Your task to perform on an android device: Open Wikipedia Image 0: 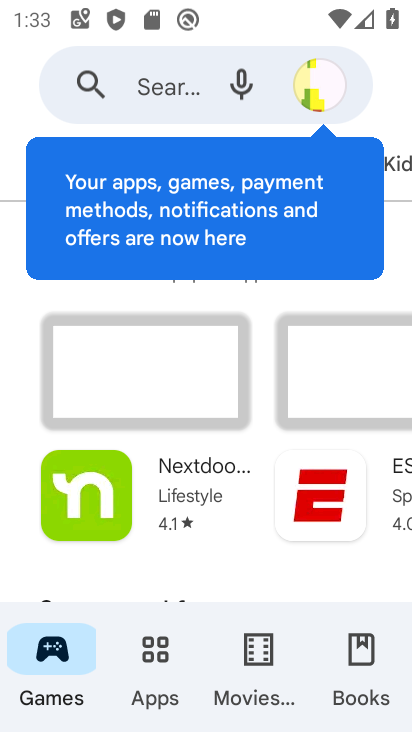
Step 0: press home button
Your task to perform on an android device: Open Wikipedia Image 1: 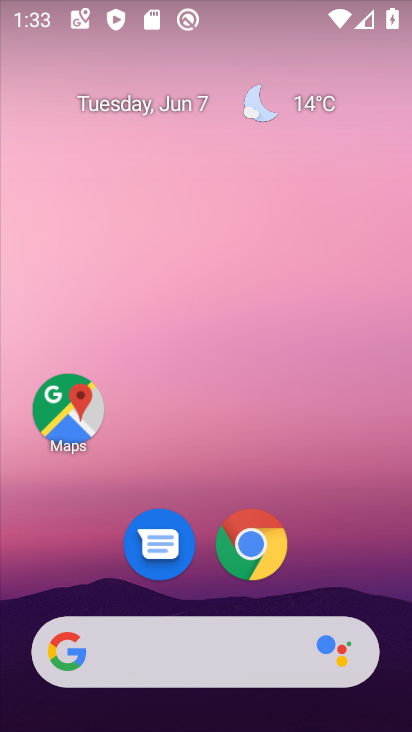
Step 1: click (259, 529)
Your task to perform on an android device: Open Wikipedia Image 2: 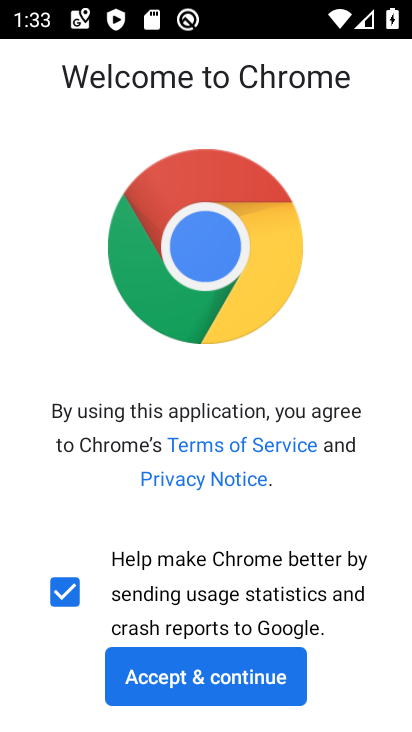
Step 2: click (236, 663)
Your task to perform on an android device: Open Wikipedia Image 3: 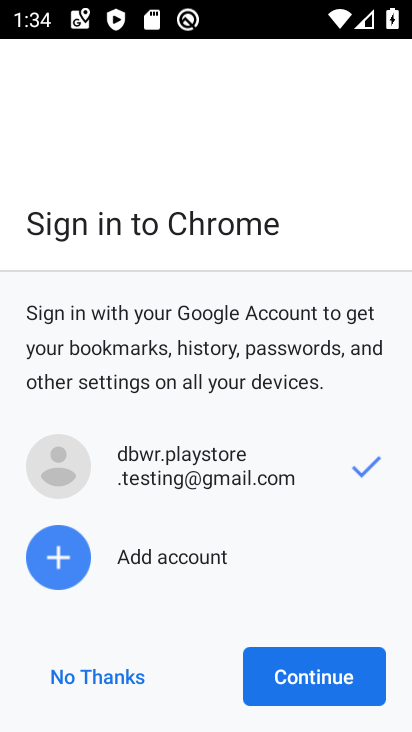
Step 3: click (260, 675)
Your task to perform on an android device: Open Wikipedia Image 4: 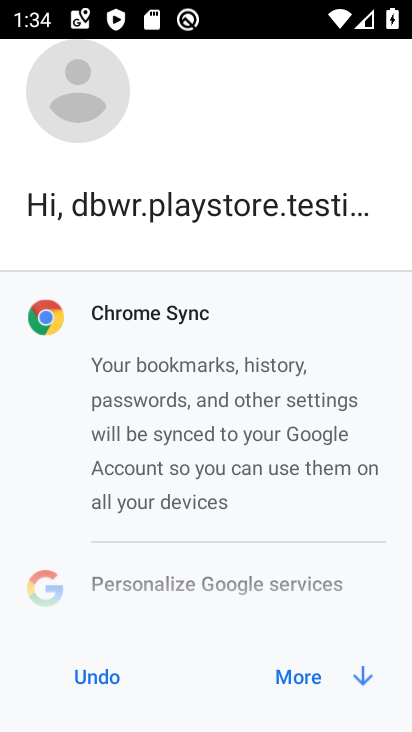
Step 4: click (304, 686)
Your task to perform on an android device: Open Wikipedia Image 5: 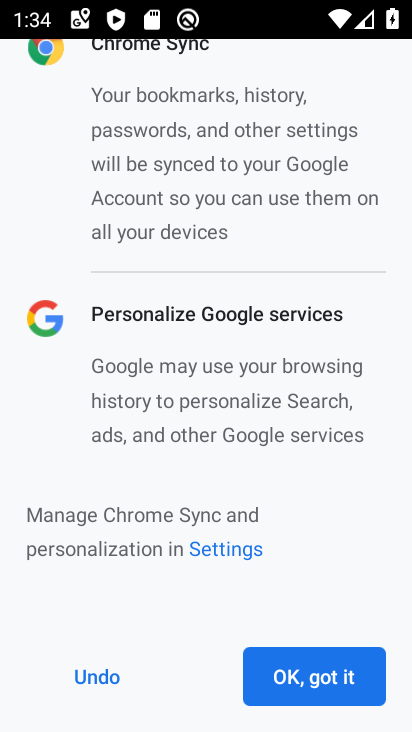
Step 5: click (304, 686)
Your task to perform on an android device: Open Wikipedia Image 6: 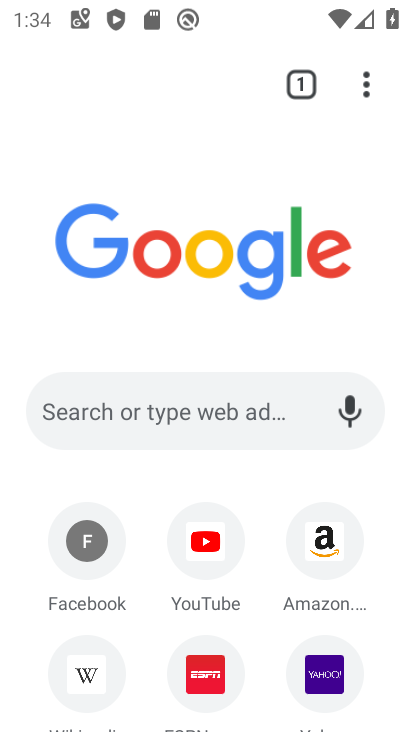
Step 6: click (91, 682)
Your task to perform on an android device: Open Wikipedia Image 7: 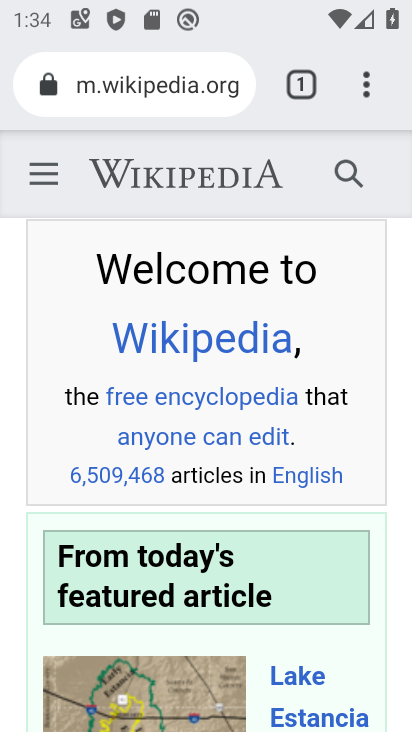
Step 7: task complete